Your task to perform on an android device: What's on my calendar tomorrow? Image 0: 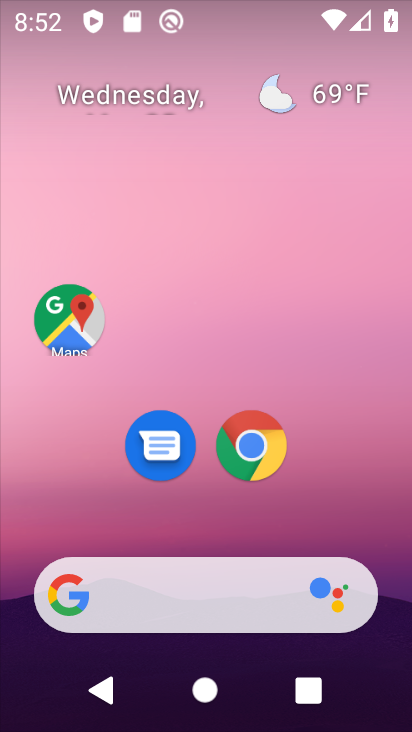
Step 0: drag from (333, 505) to (317, 106)
Your task to perform on an android device: What's on my calendar tomorrow? Image 1: 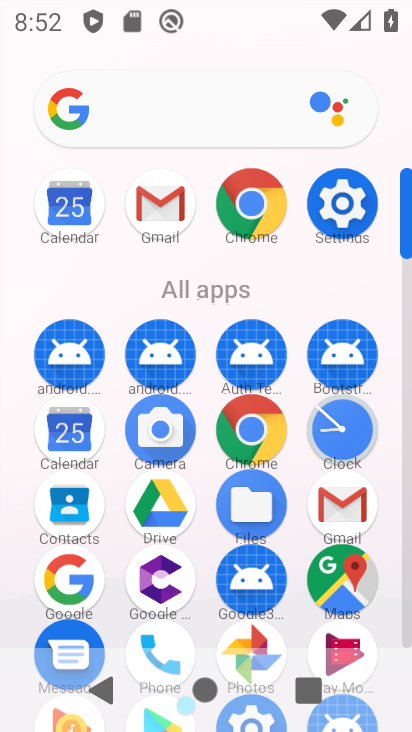
Step 1: click (64, 208)
Your task to perform on an android device: What's on my calendar tomorrow? Image 2: 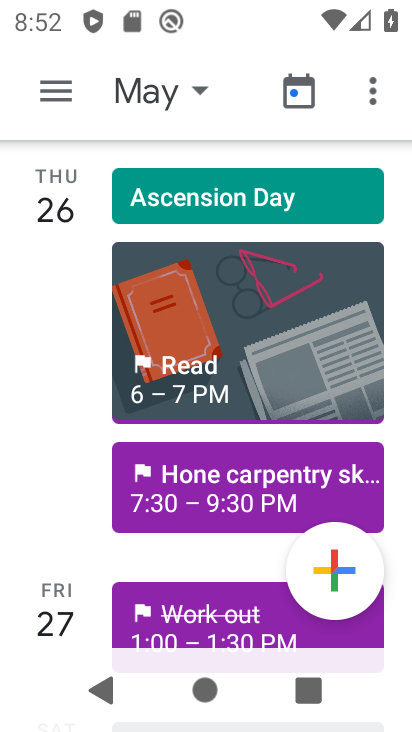
Step 2: click (368, 100)
Your task to perform on an android device: What's on my calendar tomorrow? Image 3: 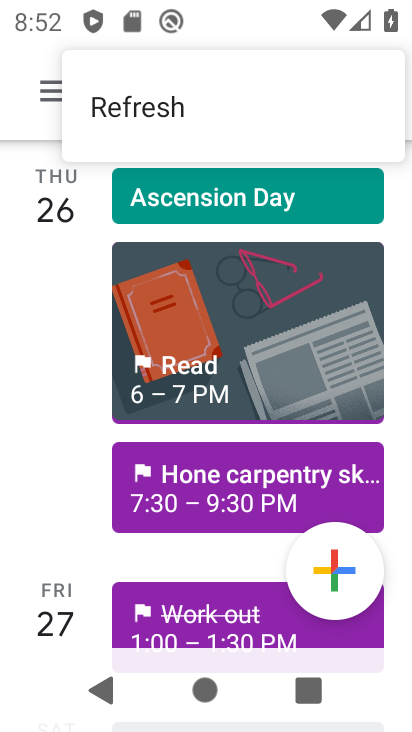
Step 3: click (45, 289)
Your task to perform on an android device: What's on my calendar tomorrow? Image 4: 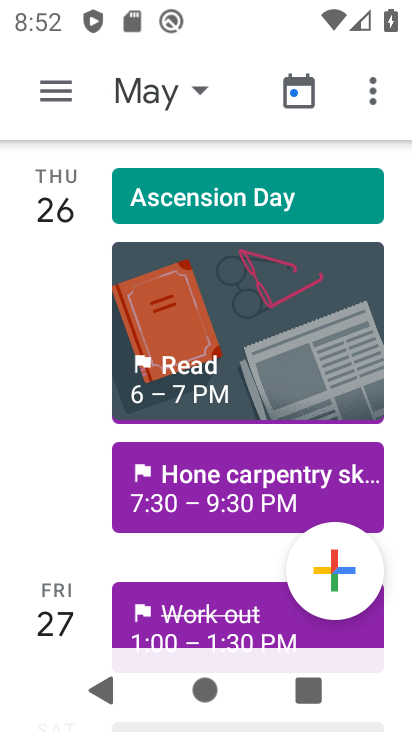
Step 4: click (202, 96)
Your task to perform on an android device: What's on my calendar tomorrow? Image 5: 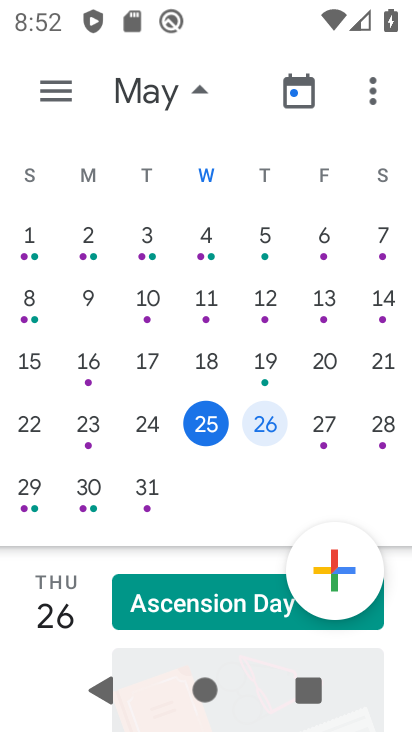
Step 5: click (324, 424)
Your task to perform on an android device: What's on my calendar tomorrow? Image 6: 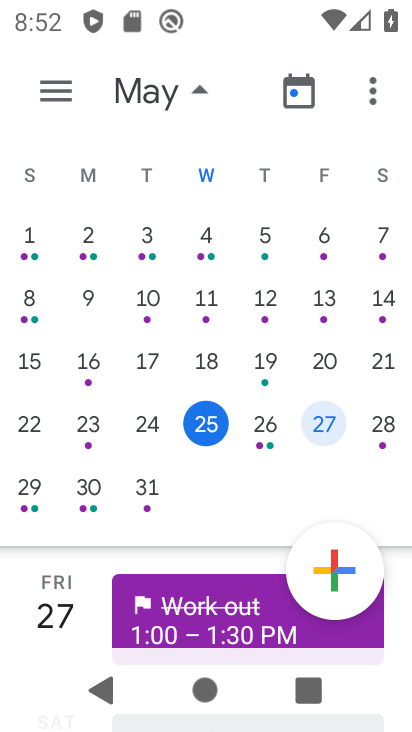
Step 6: task complete